Your task to perform on an android device: turn on sleep mode Image 0: 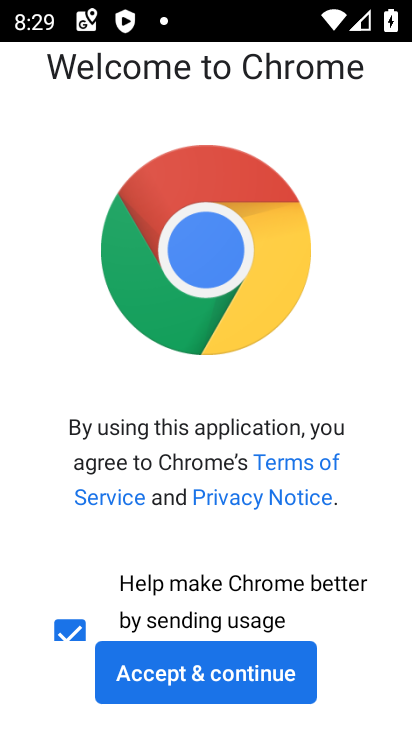
Step 0: drag from (322, 566) to (327, 357)
Your task to perform on an android device: turn on sleep mode Image 1: 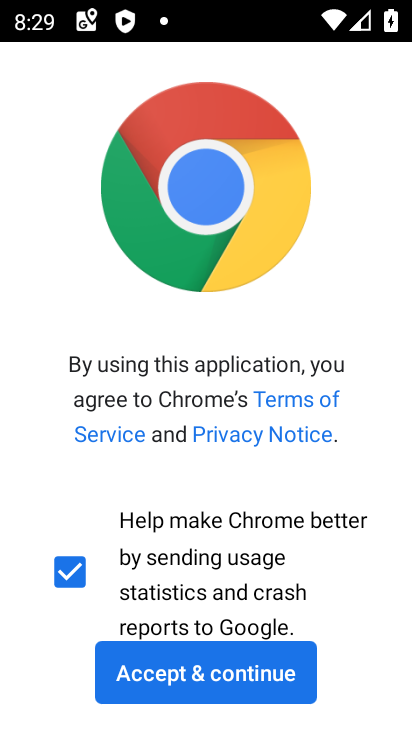
Step 1: press home button
Your task to perform on an android device: turn on sleep mode Image 2: 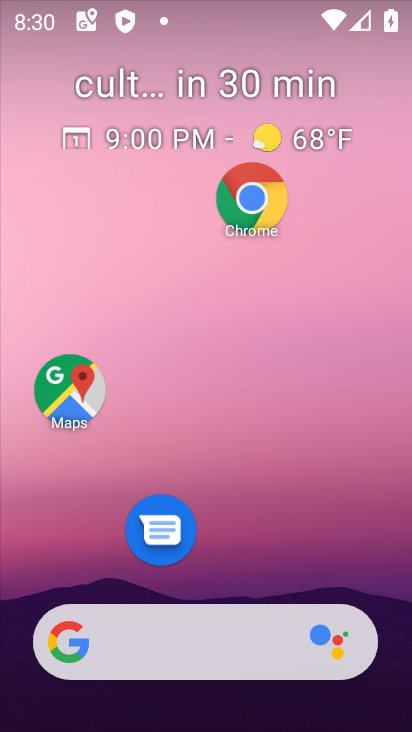
Step 2: drag from (225, 568) to (184, 84)
Your task to perform on an android device: turn on sleep mode Image 3: 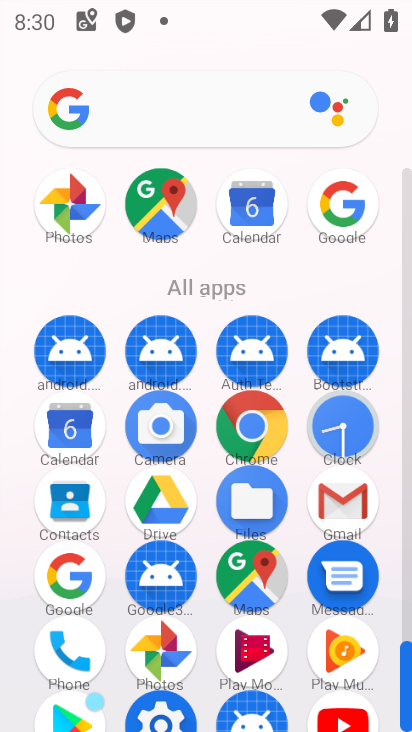
Step 3: drag from (107, 601) to (112, 289)
Your task to perform on an android device: turn on sleep mode Image 4: 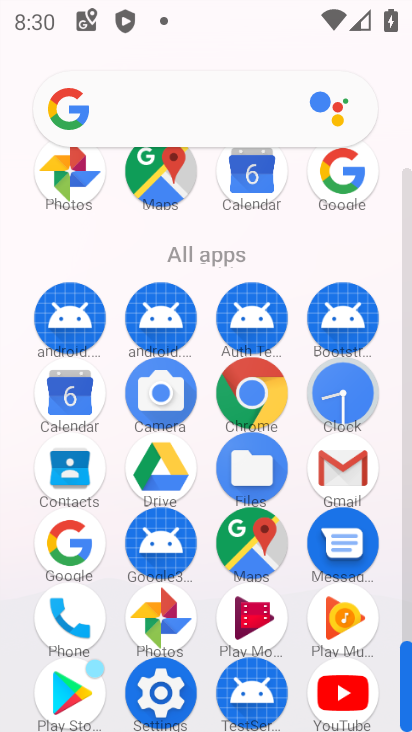
Step 4: click (156, 704)
Your task to perform on an android device: turn on sleep mode Image 5: 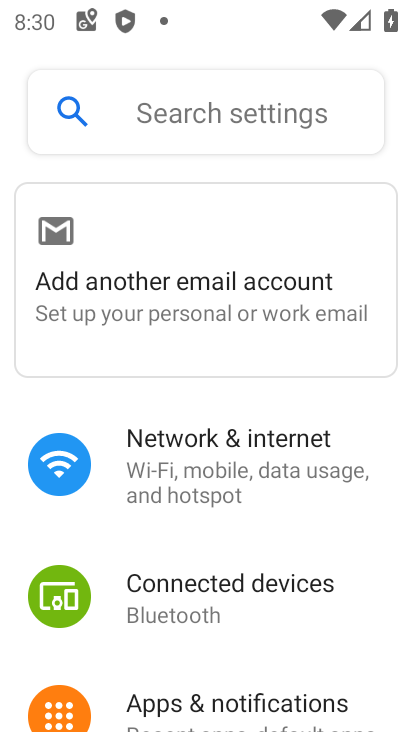
Step 5: drag from (250, 622) to (245, 343)
Your task to perform on an android device: turn on sleep mode Image 6: 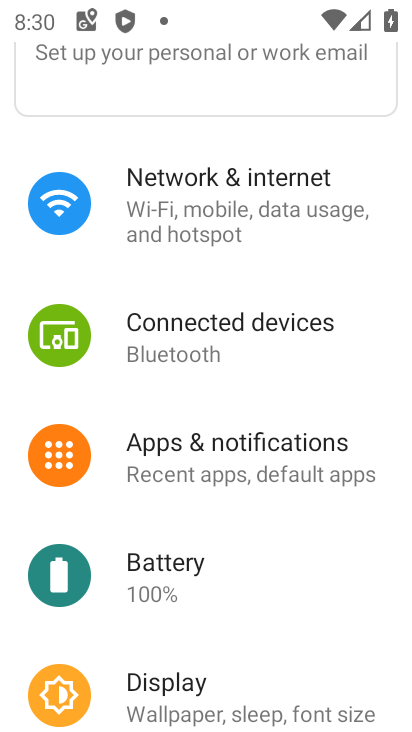
Step 6: click (178, 697)
Your task to perform on an android device: turn on sleep mode Image 7: 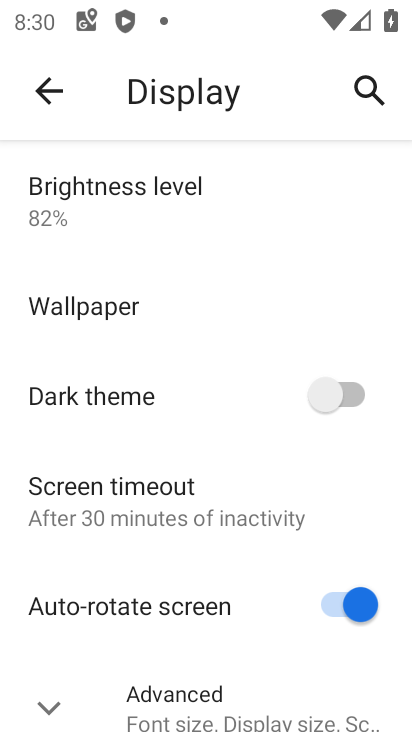
Step 7: click (209, 510)
Your task to perform on an android device: turn on sleep mode Image 8: 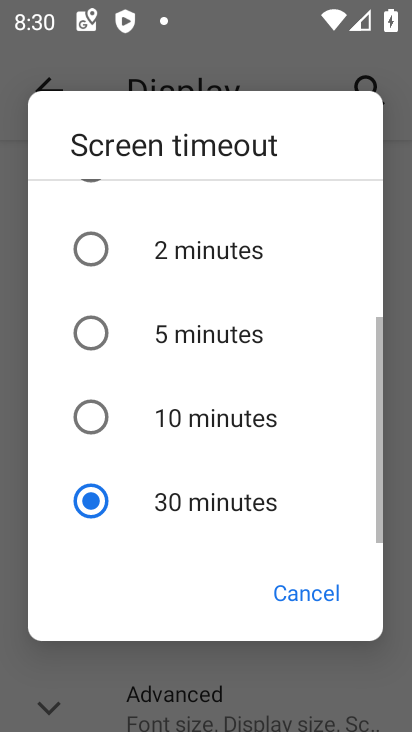
Step 8: click (181, 333)
Your task to perform on an android device: turn on sleep mode Image 9: 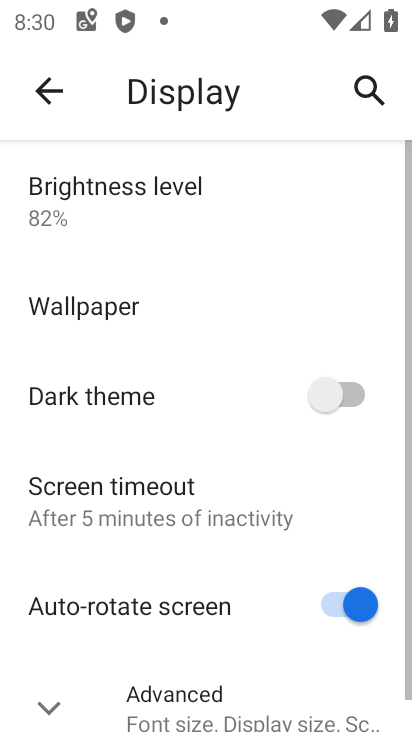
Step 9: task complete